Your task to perform on an android device: Do I have any events today? Image 0: 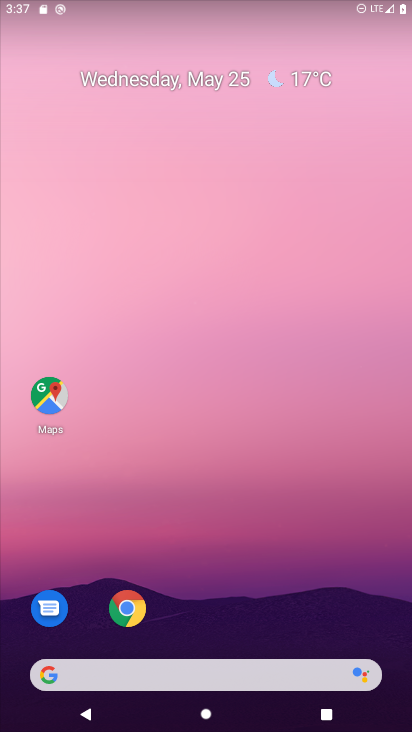
Step 0: drag from (380, 622) to (333, 129)
Your task to perform on an android device: Do I have any events today? Image 1: 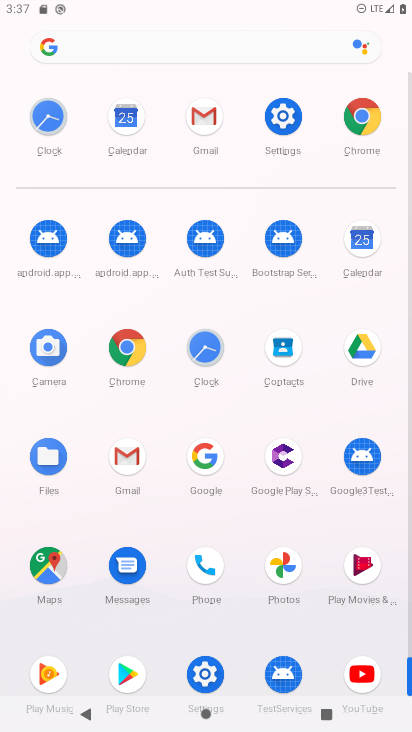
Step 1: click (361, 240)
Your task to perform on an android device: Do I have any events today? Image 2: 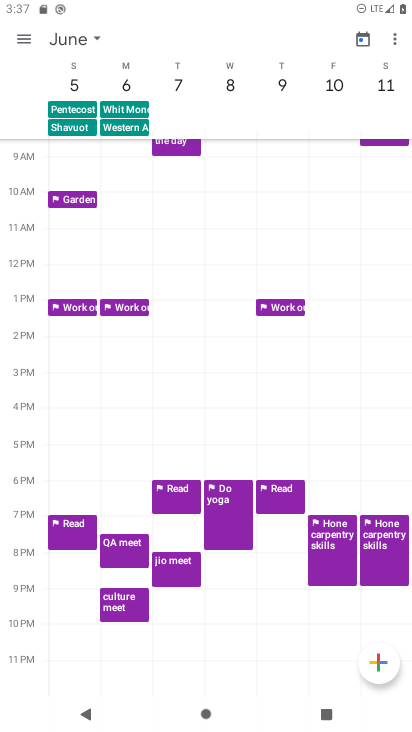
Step 2: click (25, 40)
Your task to perform on an android device: Do I have any events today? Image 3: 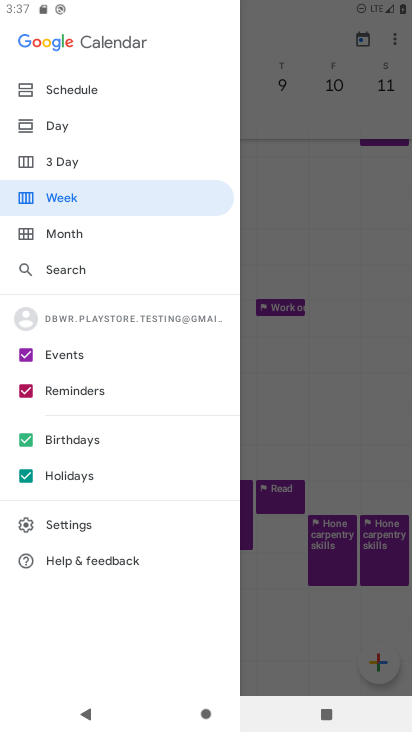
Step 3: click (56, 129)
Your task to perform on an android device: Do I have any events today? Image 4: 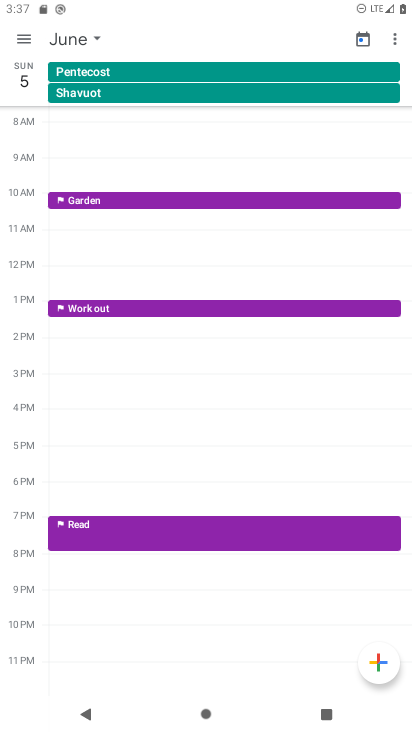
Step 4: click (95, 41)
Your task to perform on an android device: Do I have any events today? Image 5: 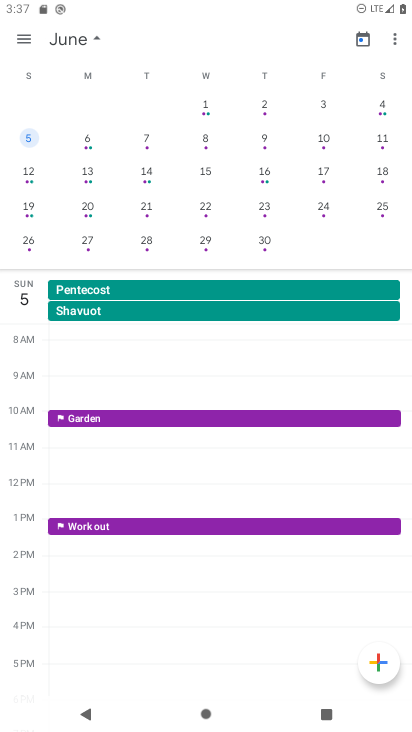
Step 5: drag from (44, 192) to (395, 184)
Your task to perform on an android device: Do I have any events today? Image 6: 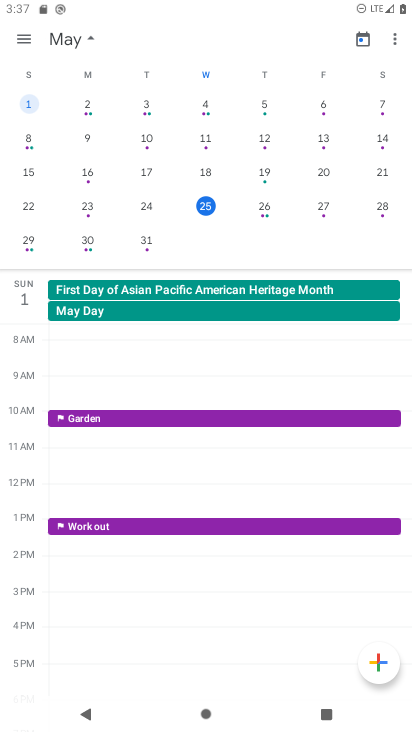
Step 6: click (204, 202)
Your task to perform on an android device: Do I have any events today? Image 7: 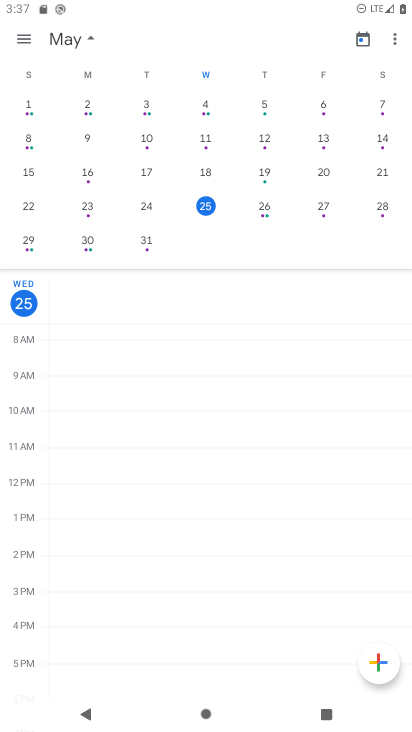
Step 7: task complete